Your task to perform on an android device: open device folders in google photos Image 0: 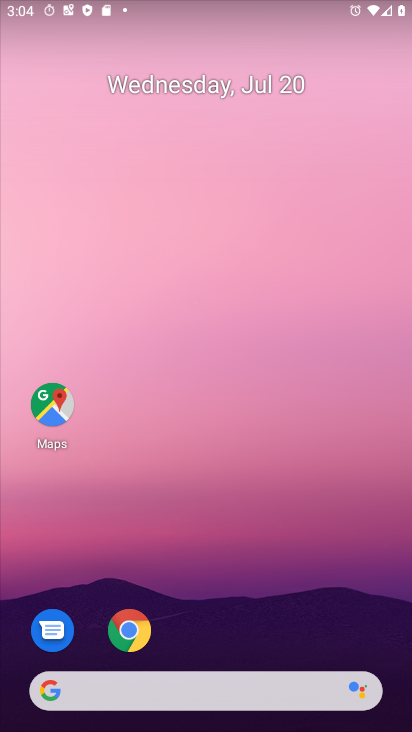
Step 0: drag from (138, 683) to (253, 172)
Your task to perform on an android device: open device folders in google photos Image 1: 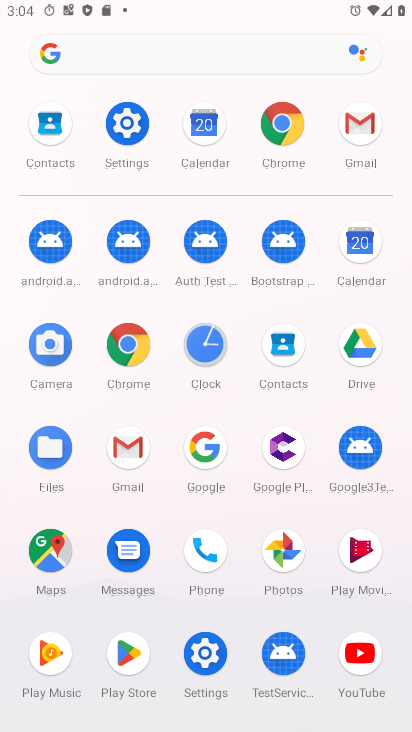
Step 1: click (288, 552)
Your task to perform on an android device: open device folders in google photos Image 2: 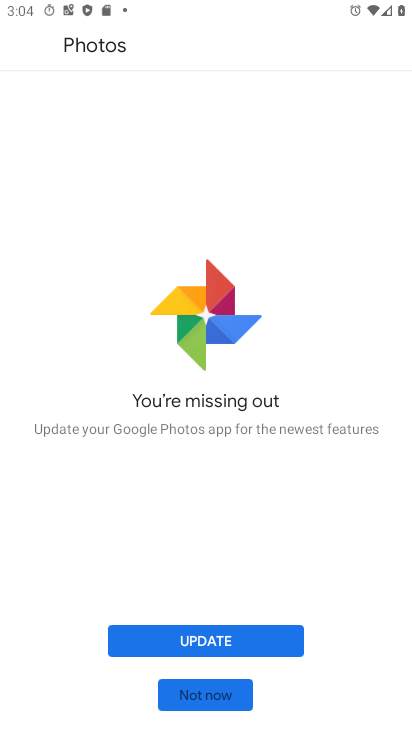
Step 2: click (225, 693)
Your task to perform on an android device: open device folders in google photos Image 3: 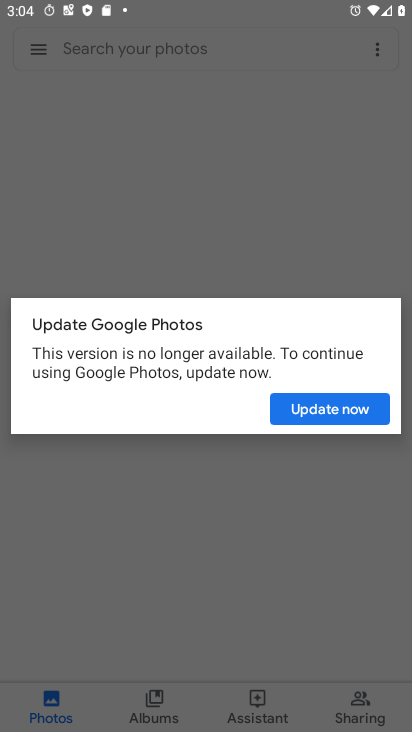
Step 3: click (344, 405)
Your task to perform on an android device: open device folders in google photos Image 4: 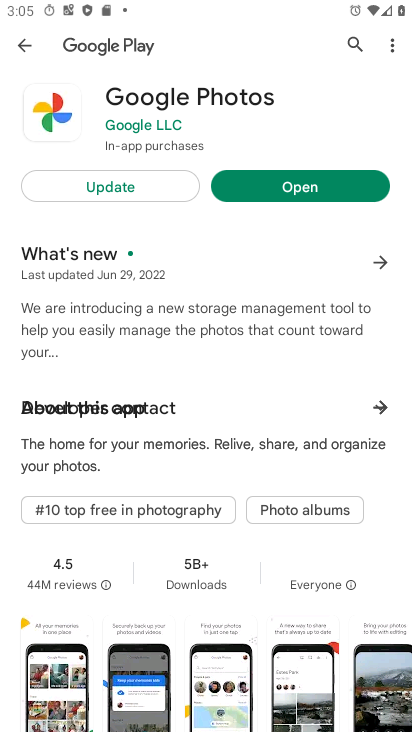
Step 4: click (321, 191)
Your task to perform on an android device: open device folders in google photos Image 5: 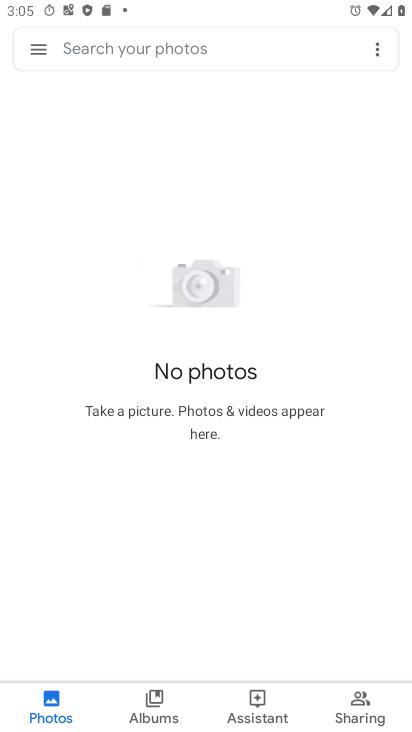
Step 5: click (38, 46)
Your task to perform on an android device: open device folders in google photos Image 6: 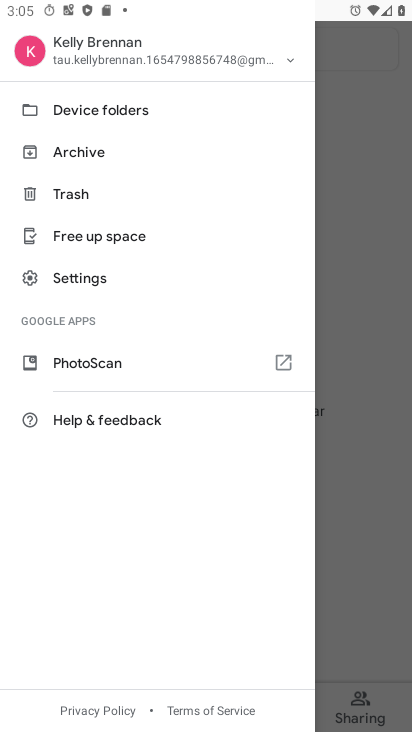
Step 6: click (110, 106)
Your task to perform on an android device: open device folders in google photos Image 7: 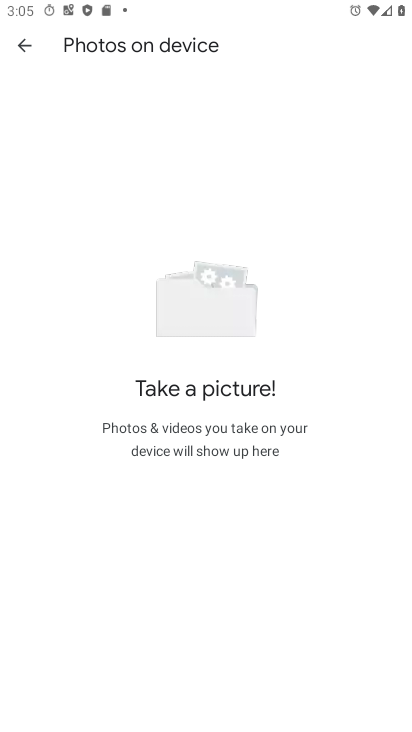
Step 7: task complete